Your task to perform on an android device: Open Youtube and go to the subscriptions tab Image 0: 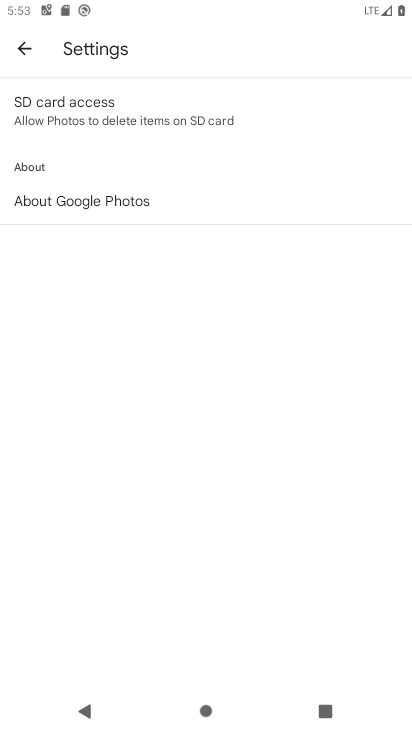
Step 0: press home button
Your task to perform on an android device: Open Youtube and go to the subscriptions tab Image 1: 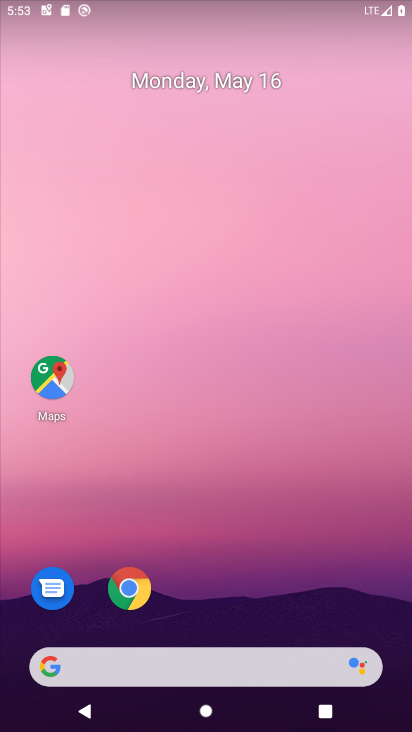
Step 1: drag from (256, 500) to (200, 9)
Your task to perform on an android device: Open Youtube and go to the subscriptions tab Image 2: 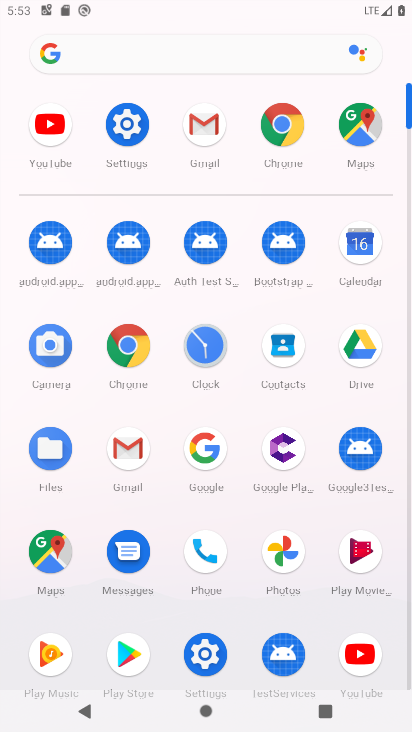
Step 2: click (53, 127)
Your task to perform on an android device: Open Youtube and go to the subscriptions tab Image 3: 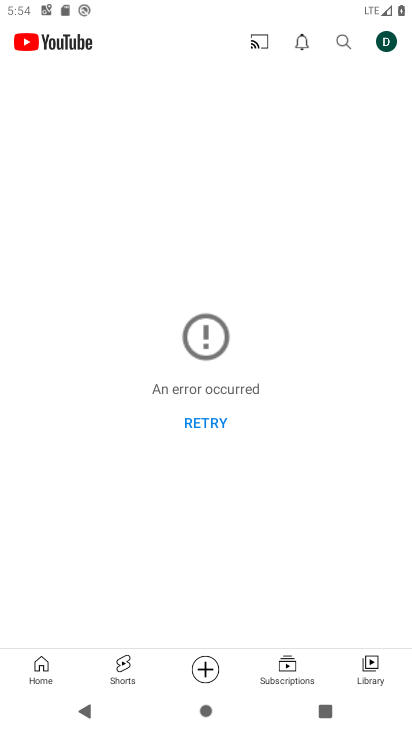
Step 3: click (301, 662)
Your task to perform on an android device: Open Youtube and go to the subscriptions tab Image 4: 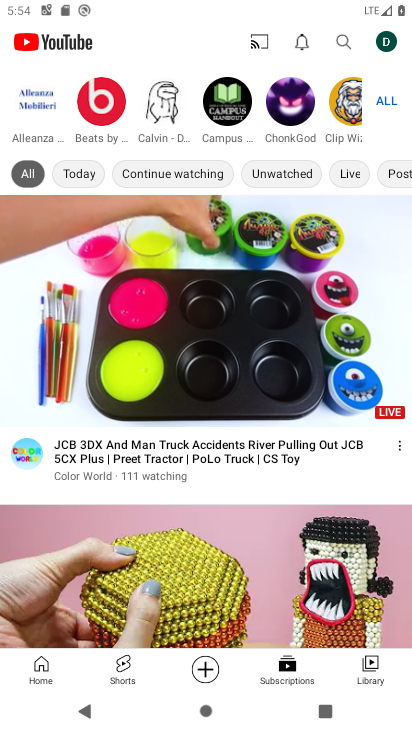
Step 4: click (282, 665)
Your task to perform on an android device: Open Youtube and go to the subscriptions tab Image 5: 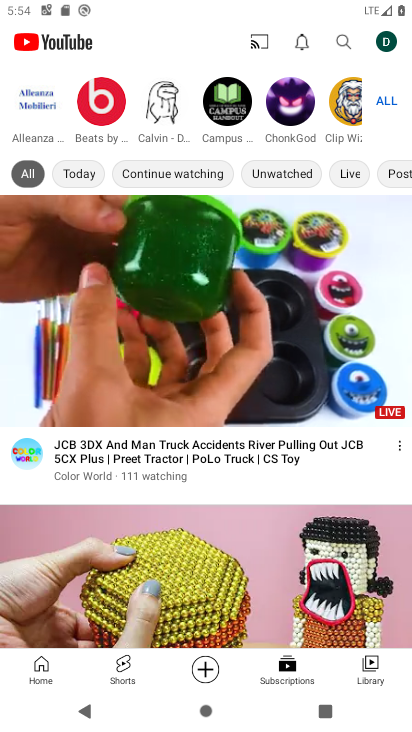
Step 5: task complete